Your task to perform on an android device: open app "Adobe Acrobat Reader: Edit PDF" (install if not already installed) Image 0: 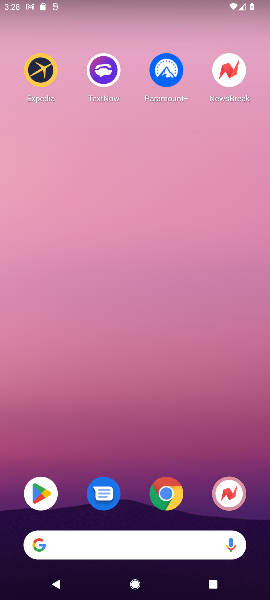
Step 0: click (41, 498)
Your task to perform on an android device: open app "Adobe Acrobat Reader: Edit PDF" (install if not already installed) Image 1: 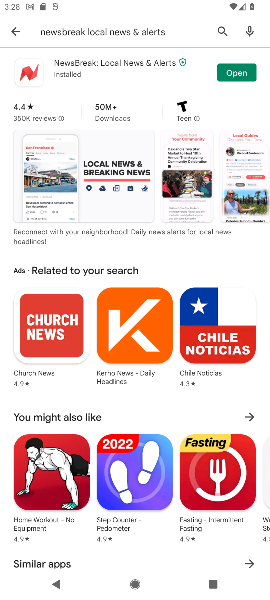
Step 1: click (15, 32)
Your task to perform on an android device: open app "Adobe Acrobat Reader: Edit PDF" (install if not already installed) Image 2: 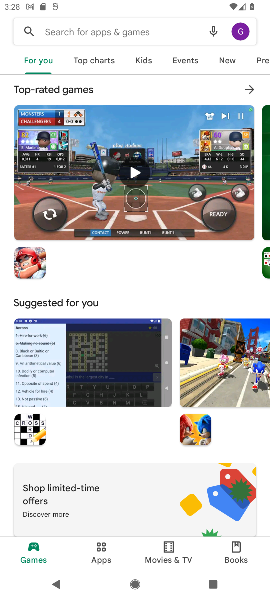
Step 2: click (81, 32)
Your task to perform on an android device: open app "Adobe Acrobat Reader: Edit PDF" (install if not already installed) Image 3: 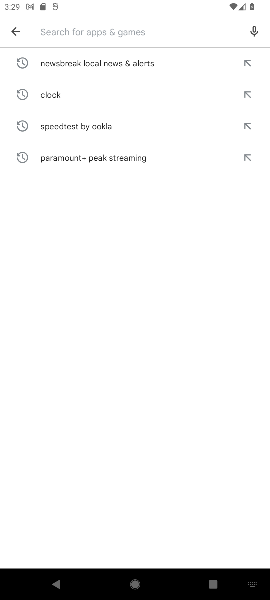
Step 3: type "Adobe Acrobat Reader: Edit PDF"
Your task to perform on an android device: open app "Adobe Acrobat Reader: Edit PDF" (install if not already installed) Image 4: 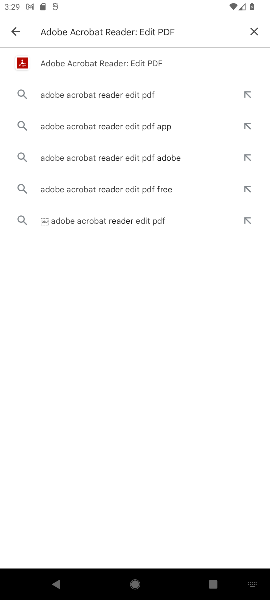
Step 4: click (109, 61)
Your task to perform on an android device: open app "Adobe Acrobat Reader: Edit PDF" (install if not already installed) Image 5: 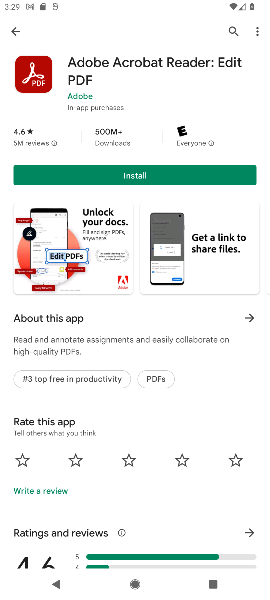
Step 5: click (131, 172)
Your task to perform on an android device: open app "Adobe Acrobat Reader: Edit PDF" (install if not already installed) Image 6: 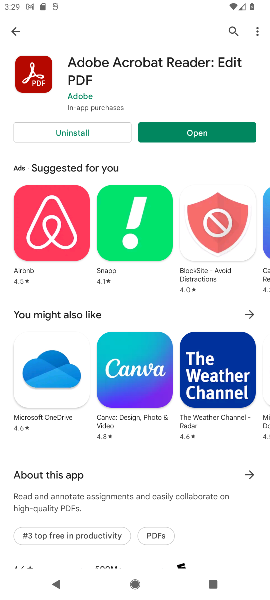
Step 6: click (183, 137)
Your task to perform on an android device: open app "Adobe Acrobat Reader: Edit PDF" (install if not already installed) Image 7: 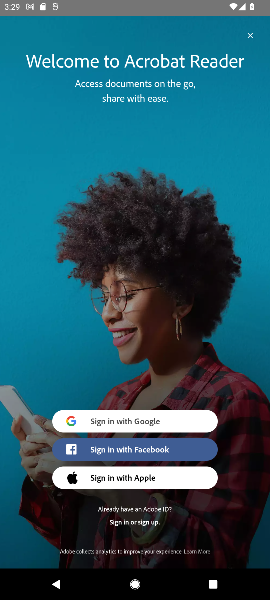
Step 7: task complete